Your task to perform on an android device: turn off notifications in google photos Image 0: 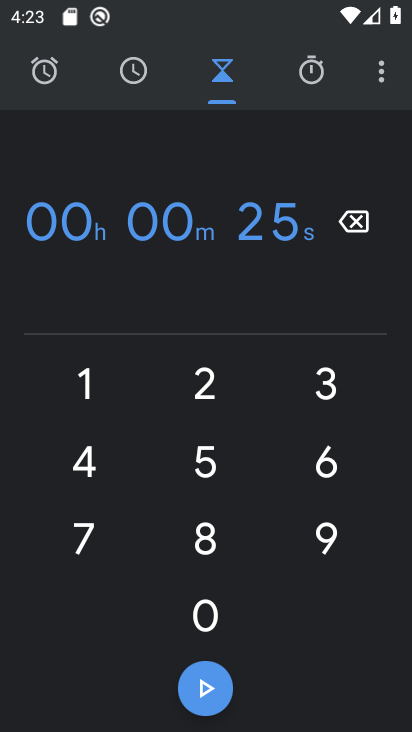
Step 0: press home button
Your task to perform on an android device: turn off notifications in google photos Image 1: 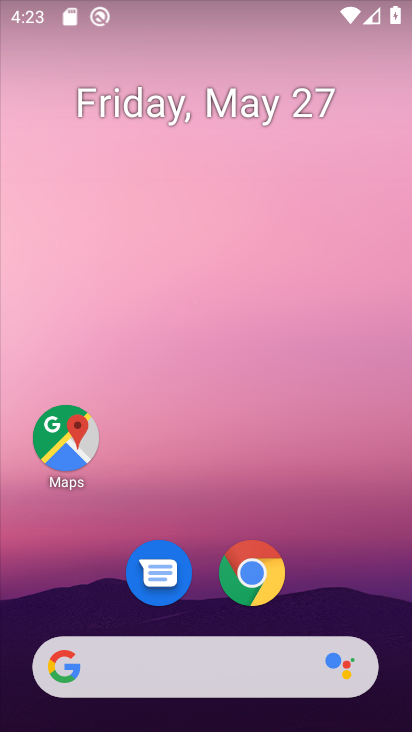
Step 1: drag from (311, 565) to (287, 35)
Your task to perform on an android device: turn off notifications in google photos Image 2: 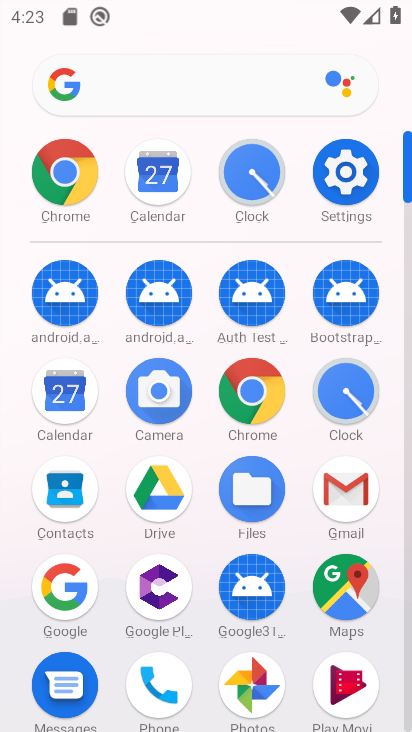
Step 2: click (329, 159)
Your task to perform on an android device: turn off notifications in google photos Image 3: 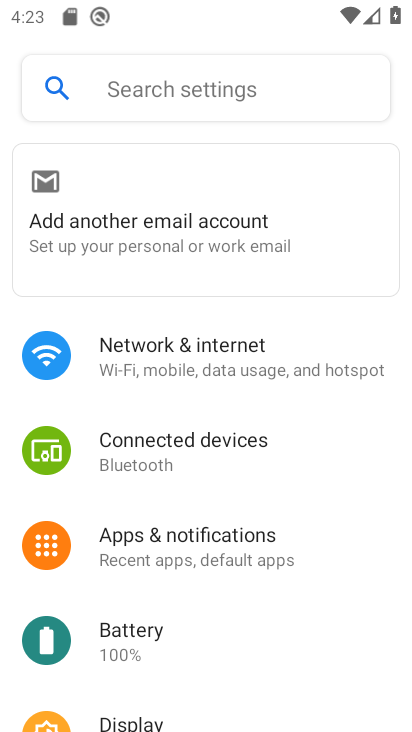
Step 3: click (244, 535)
Your task to perform on an android device: turn off notifications in google photos Image 4: 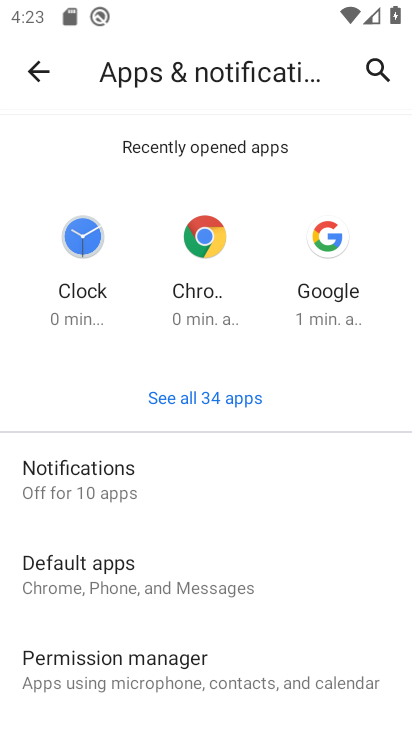
Step 4: click (244, 399)
Your task to perform on an android device: turn off notifications in google photos Image 5: 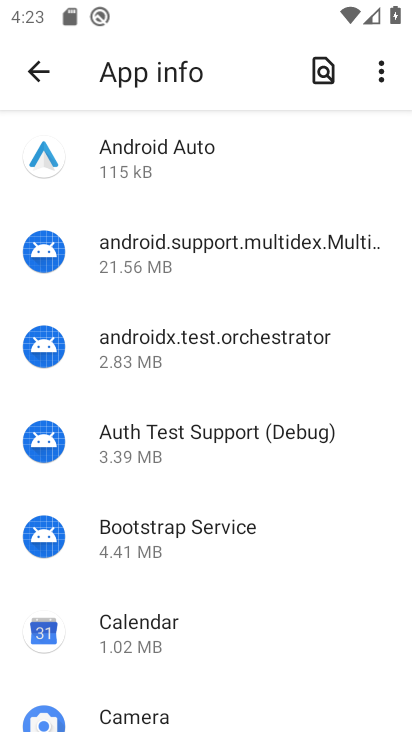
Step 5: drag from (233, 635) to (214, 26)
Your task to perform on an android device: turn off notifications in google photos Image 6: 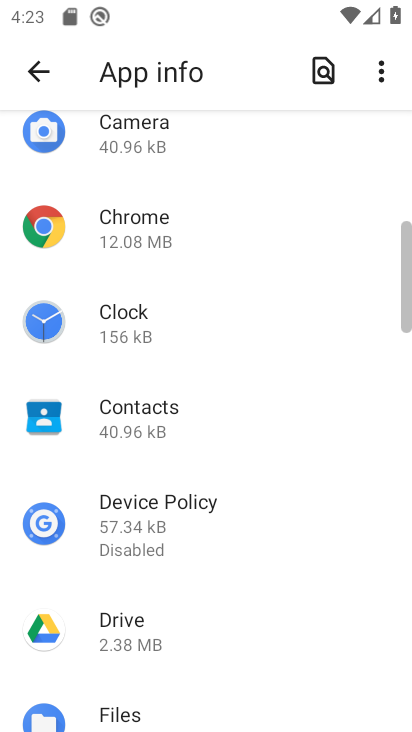
Step 6: drag from (225, 656) to (292, 22)
Your task to perform on an android device: turn off notifications in google photos Image 7: 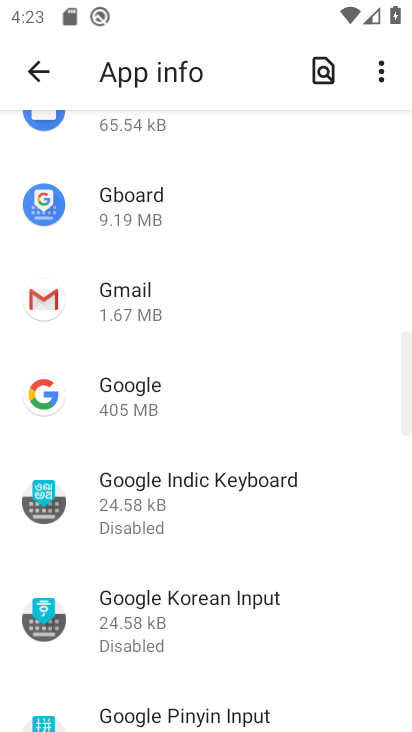
Step 7: drag from (237, 639) to (268, 24)
Your task to perform on an android device: turn off notifications in google photos Image 8: 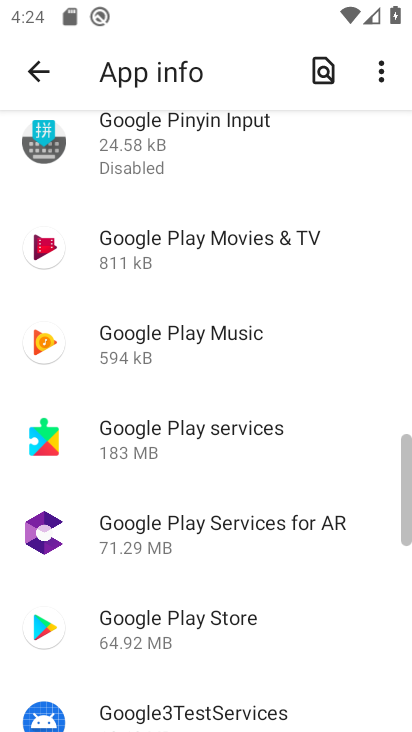
Step 8: drag from (272, 667) to (253, 60)
Your task to perform on an android device: turn off notifications in google photos Image 9: 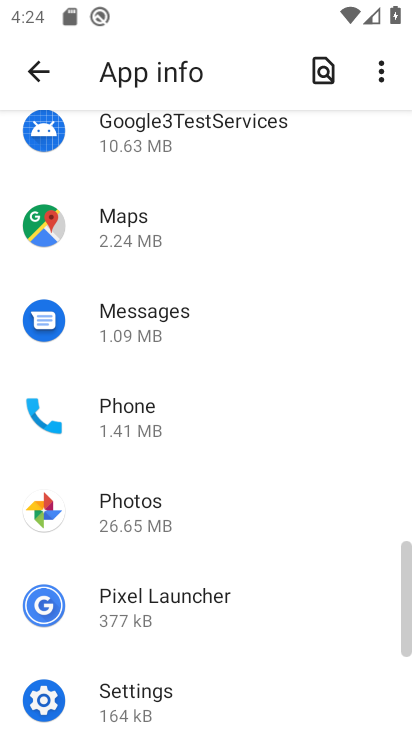
Step 9: click (159, 506)
Your task to perform on an android device: turn off notifications in google photos Image 10: 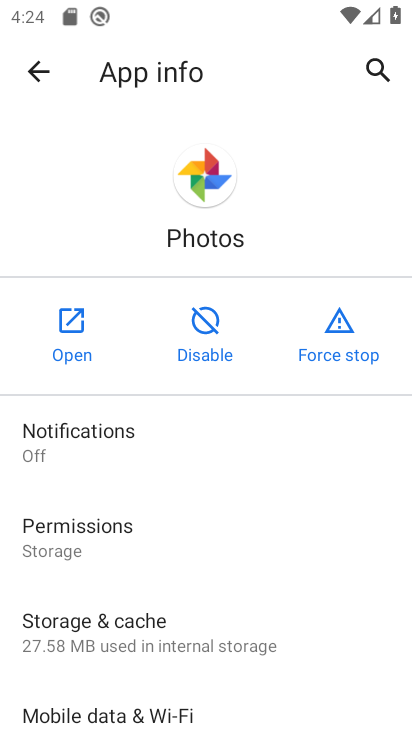
Step 10: task complete